Your task to perform on an android device: When is my next appointment? Image 0: 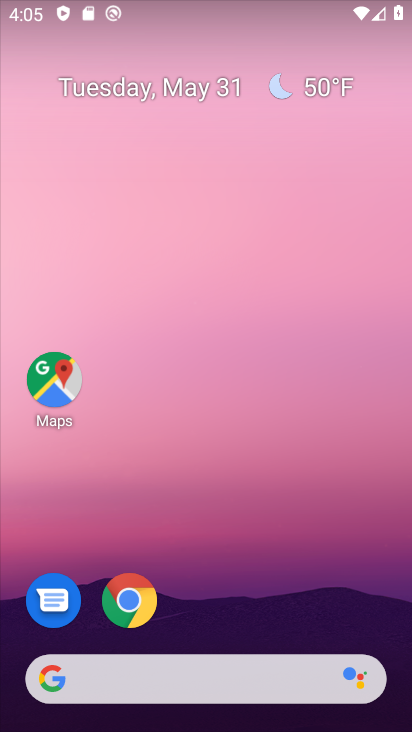
Step 0: drag from (278, 610) to (225, 149)
Your task to perform on an android device: When is my next appointment? Image 1: 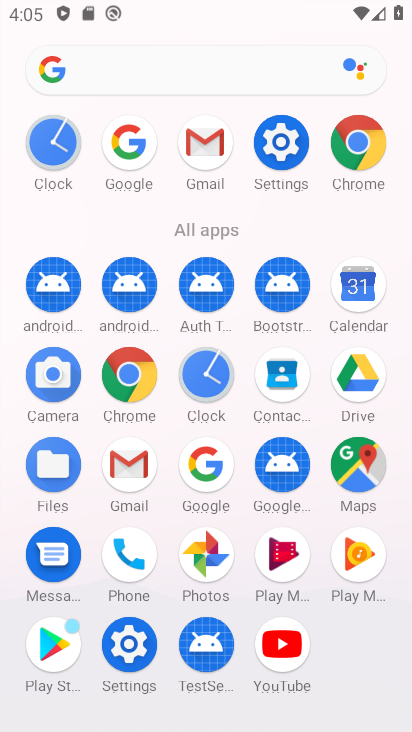
Step 1: click (356, 287)
Your task to perform on an android device: When is my next appointment? Image 2: 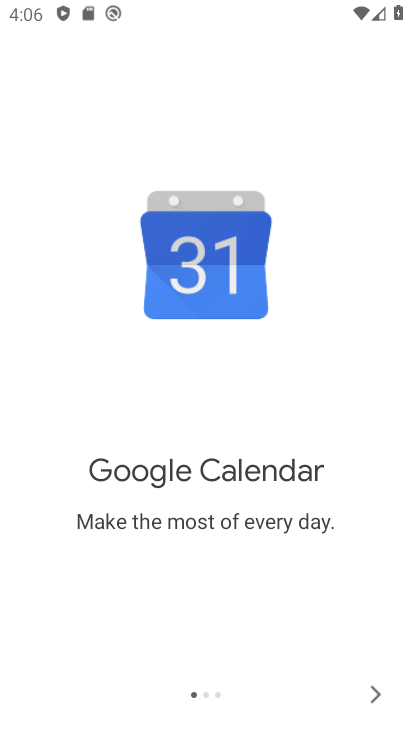
Step 2: click (376, 689)
Your task to perform on an android device: When is my next appointment? Image 3: 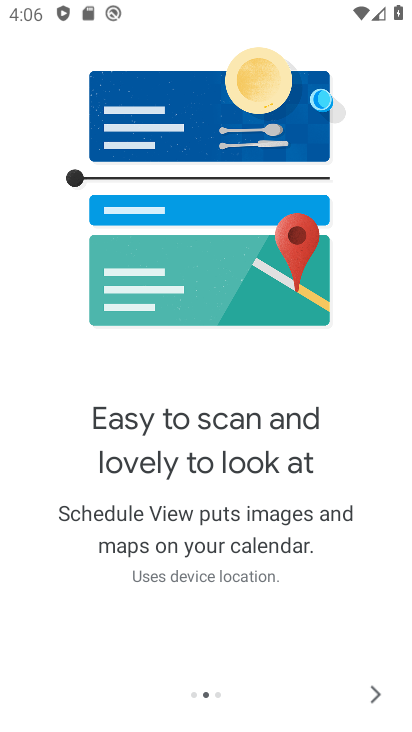
Step 3: click (376, 689)
Your task to perform on an android device: When is my next appointment? Image 4: 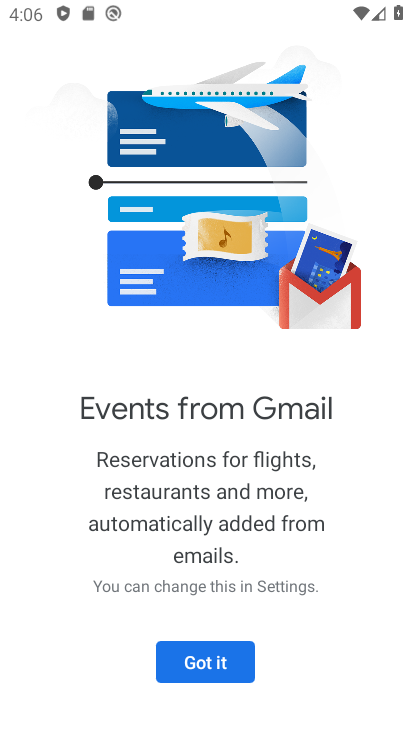
Step 4: click (193, 672)
Your task to perform on an android device: When is my next appointment? Image 5: 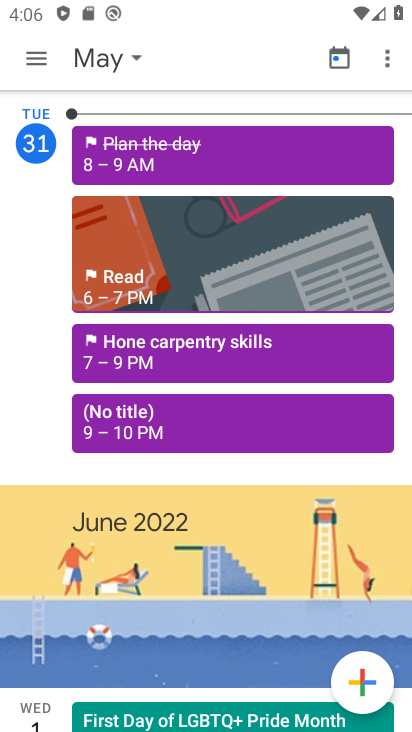
Step 5: click (130, 58)
Your task to perform on an android device: When is my next appointment? Image 6: 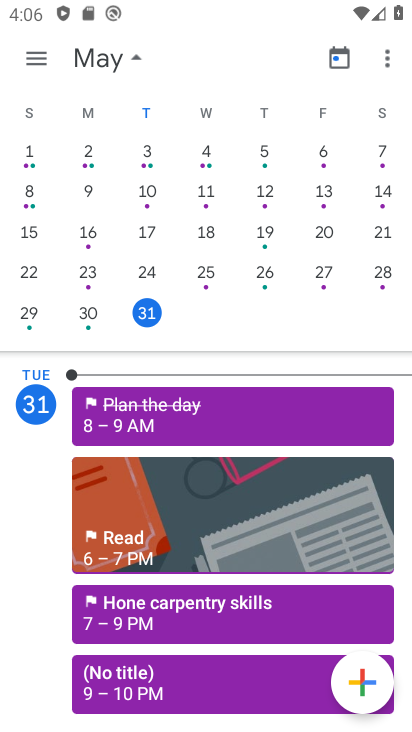
Step 6: drag from (346, 257) to (85, 272)
Your task to perform on an android device: When is my next appointment? Image 7: 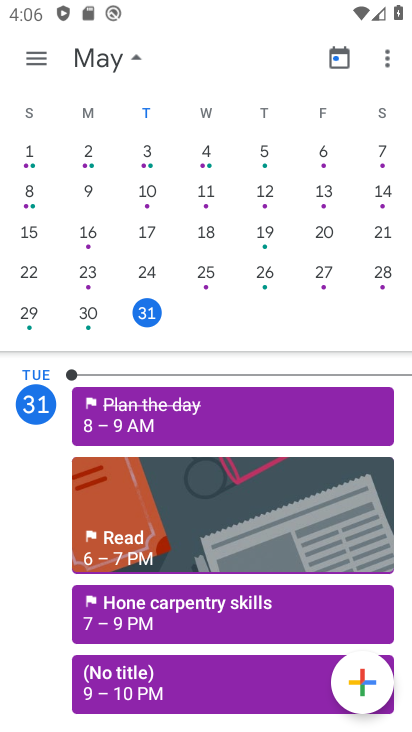
Step 7: drag from (359, 251) to (10, 273)
Your task to perform on an android device: When is my next appointment? Image 8: 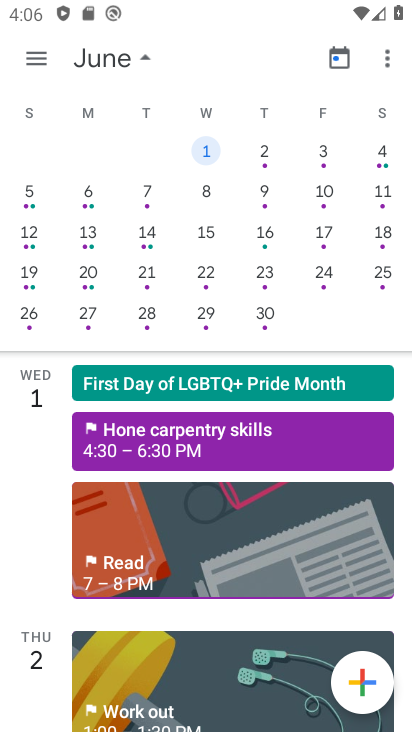
Step 8: click (39, 62)
Your task to perform on an android device: When is my next appointment? Image 9: 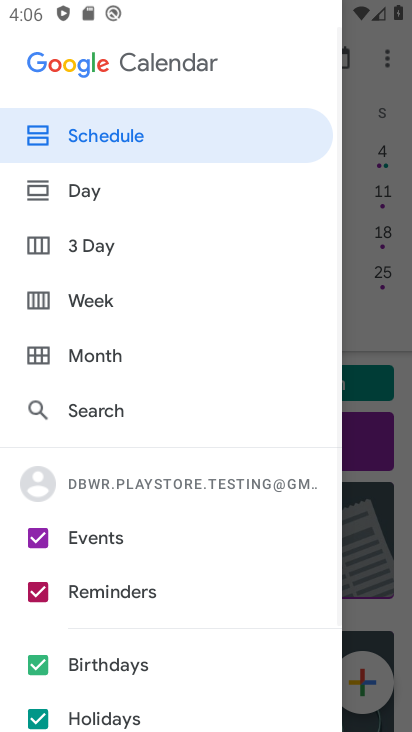
Step 9: click (86, 119)
Your task to perform on an android device: When is my next appointment? Image 10: 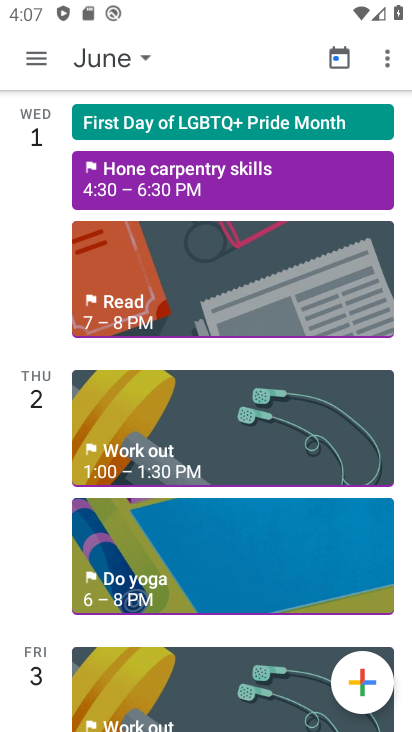
Step 10: task complete